Your task to perform on an android device: turn off airplane mode Image 0: 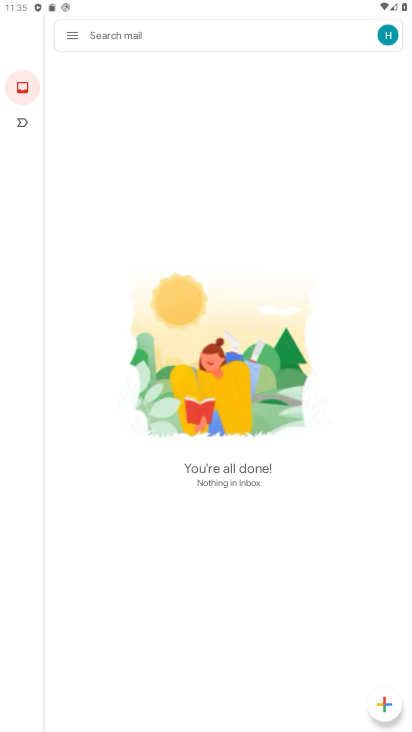
Step 0: drag from (203, 243) to (204, 206)
Your task to perform on an android device: turn off airplane mode Image 1: 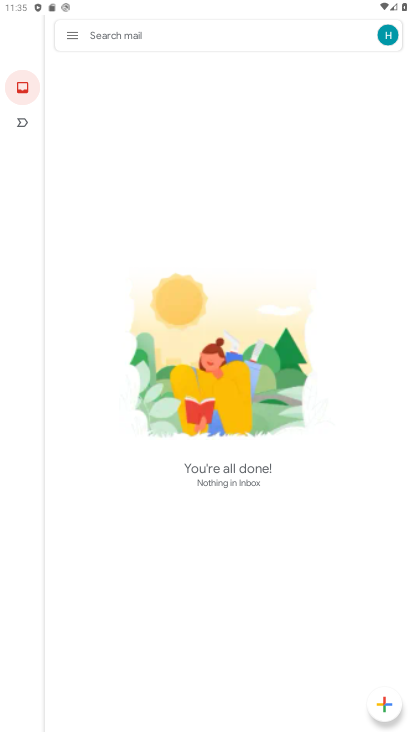
Step 1: task complete